Your task to perform on an android device: delete the emails in spam in the gmail app Image 0: 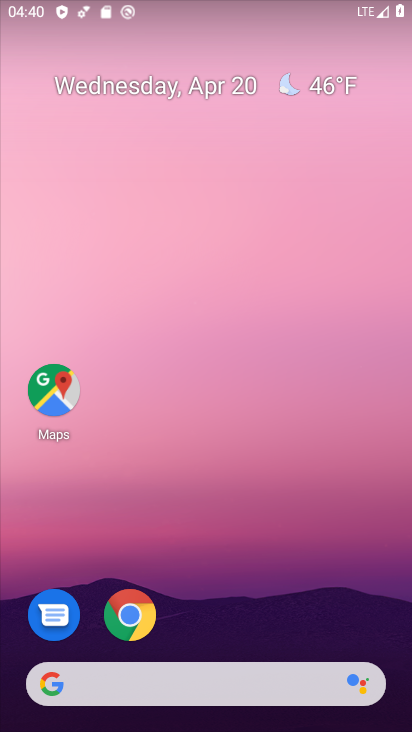
Step 0: drag from (200, 511) to (291, 204)
Your task to perform on an android device: delete the emails in spam in the gmail app Image 1: 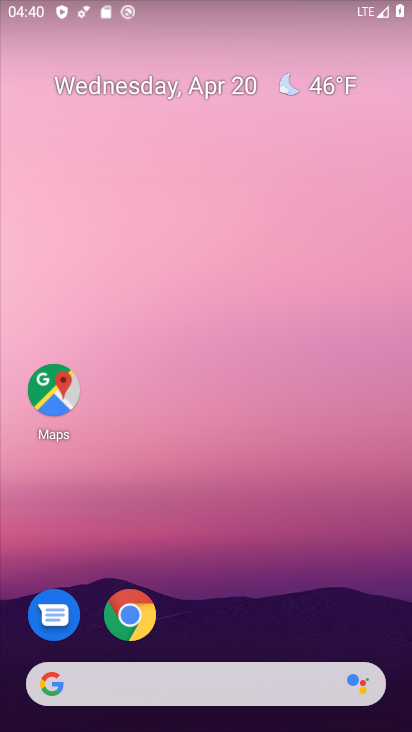
Step 1: drag from (201, 547) to (322, 74)
Your task to perform on an android device: delete the emails in spam in the gmail app Image 2: 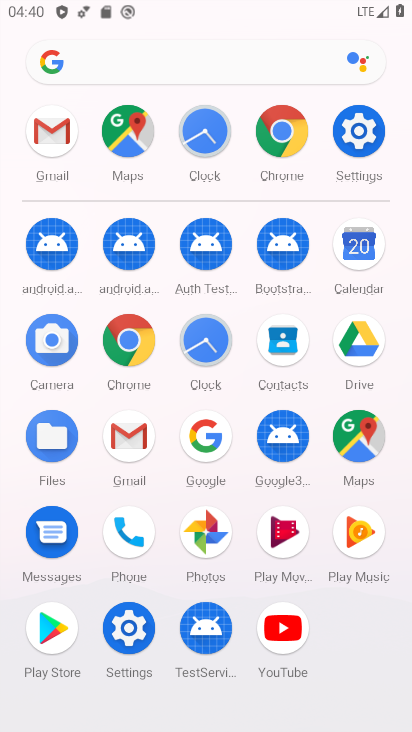
Step 2: click (53, 123)
Your task to perform on an android device: delete the emails in spam in the gmail app Image 3: 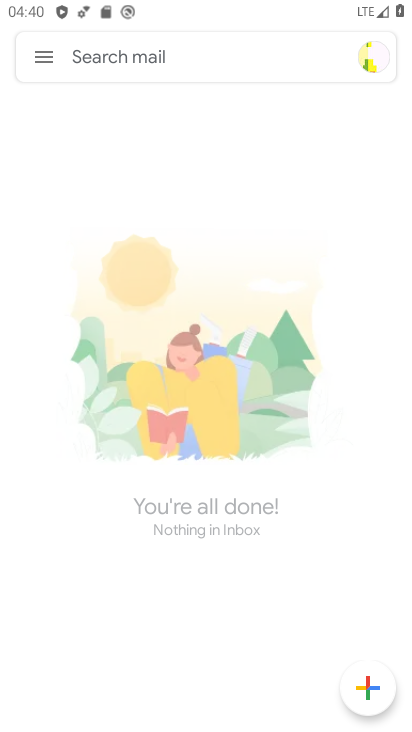
Step 3: click (44, 53)
Your task to perform on an android device: delete the emails in spam in the gmail app Image 4: 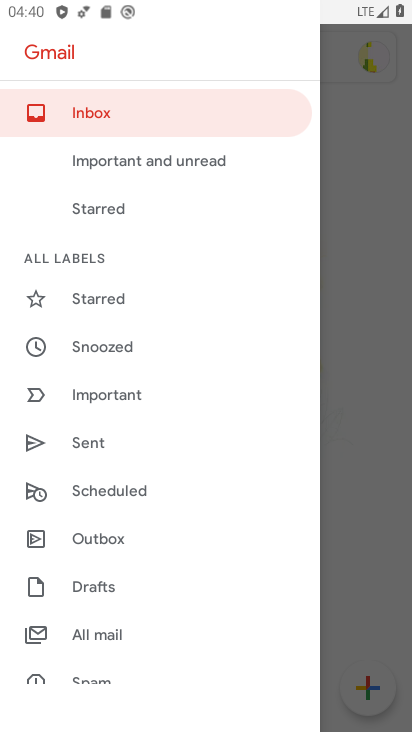
Step 4: drag from (126, 620) to (245, 130)
Your task to perform on an android device: delete the emails in spam in the gmail app Image 5: 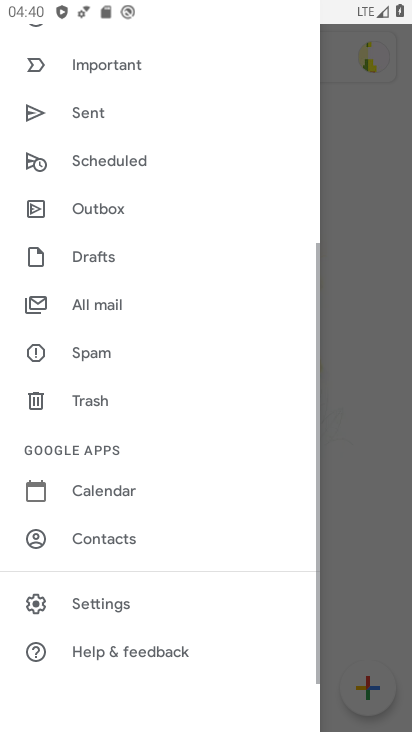
Step 5: click (123, 355)
Your task to perform on an android device: delete the emails in spam in the gmail app Image 6: 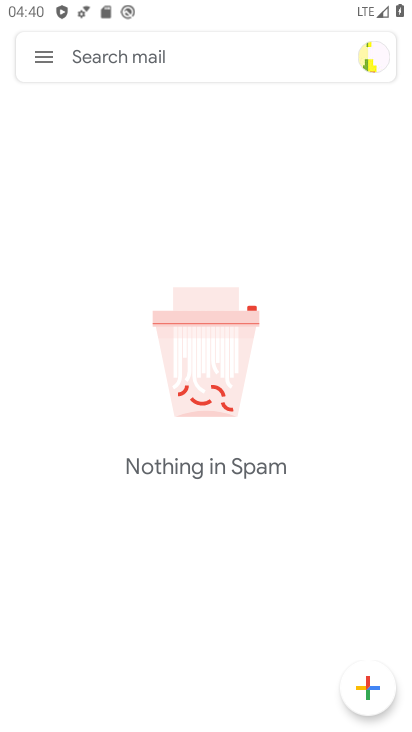
Step 6: task complete